Your task to perform on an android device: turn off airplane mode Image 0: 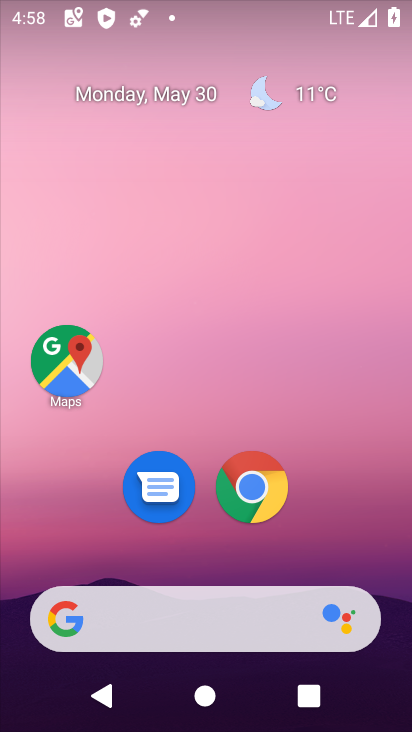
Step 0: drag from (392, 620) to (319, 85)
Your task to perform on an android device: turn off airplane mode Image 1: 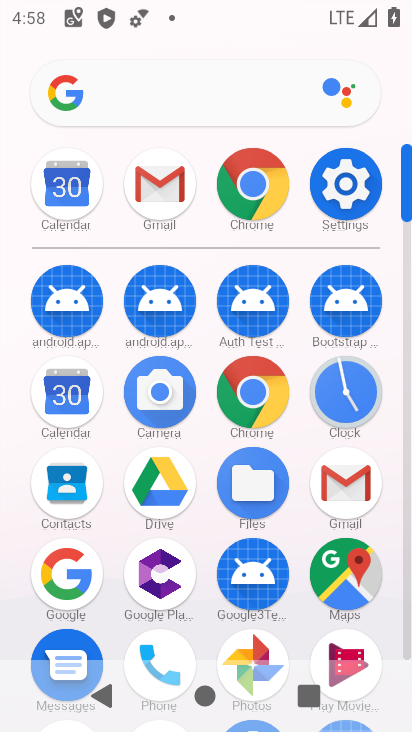
Step 1: click (408, 640)
Your task to perform on an android device: turn off airplane mode Image 2: 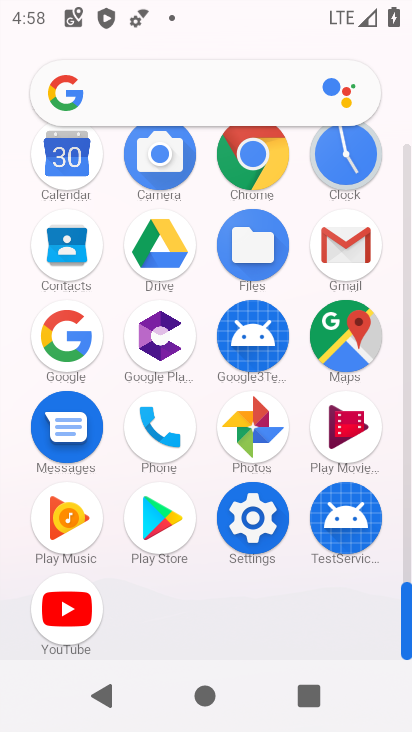
Step 2: click (253, 515)
Your task to perform on an android device: turn off airplane mode Image 3: 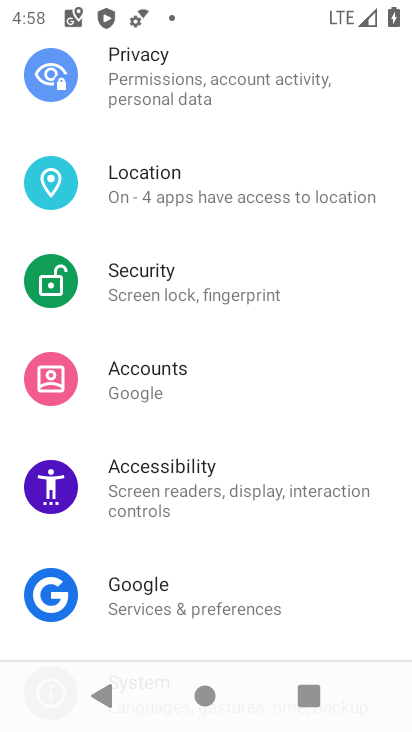
Step 3: drag from (306, 235) to (296, 447)
Your task to perform on an android device: turn off airplane mode Image 4: 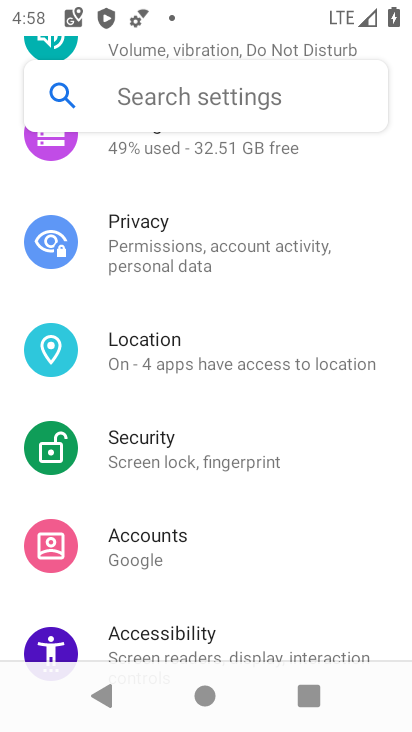
Step 4: drag from (354, 166) to (366, 453)
Your task to perform on an android device: turn off airplane mode Image 5: 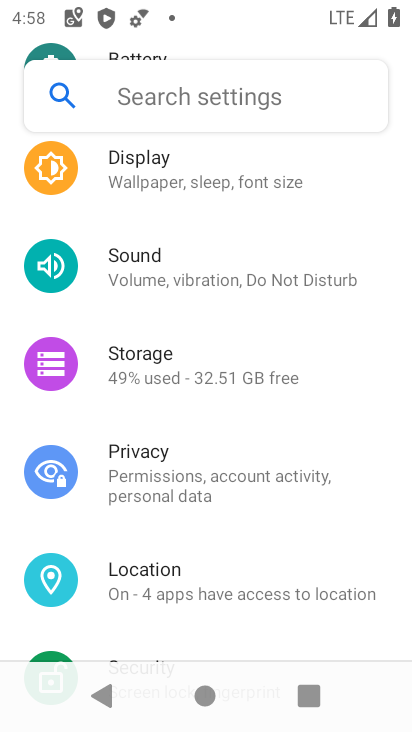
Step 5: drag from (361, 268) to (332, 557)
Your task to perform on an android device: turn off airplane mode Image 6: 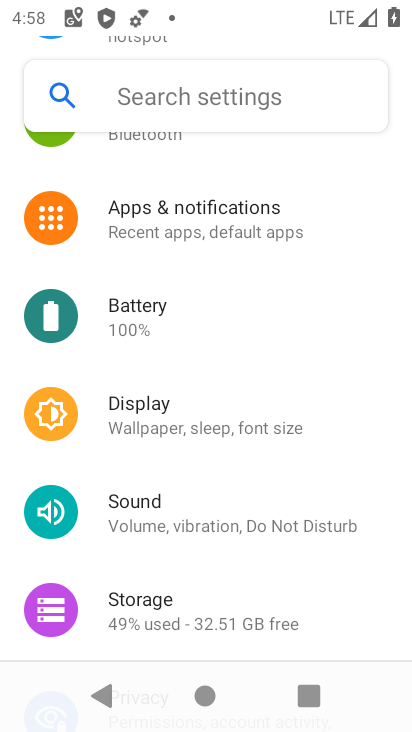
Step 6: drag from (336, 232) to (344, 511)
Your task to perform on an android device: turn off airplane mode Image 7: 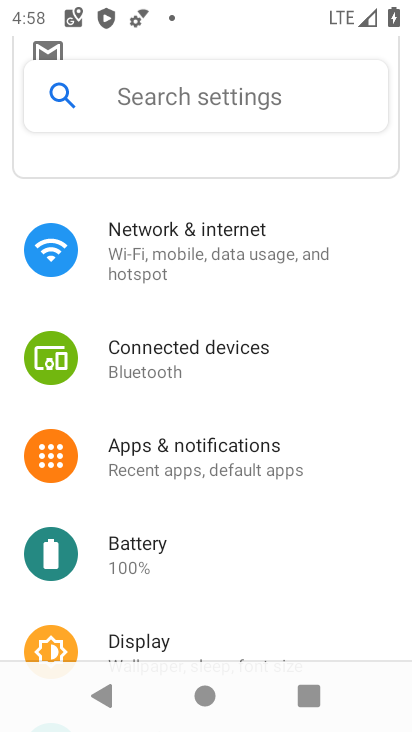
Step 7: click (162, 236)
Your task to perform on an android device: turn off airplane mode Image 8: 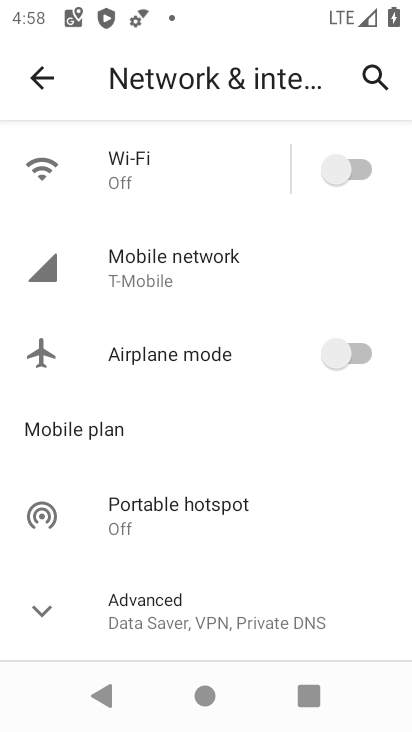
Step 8: task complete